Your task to perform on an android device: Search for "rayovac triple a" on costco.com, select the first entry, and add it to the cart. Image 0: 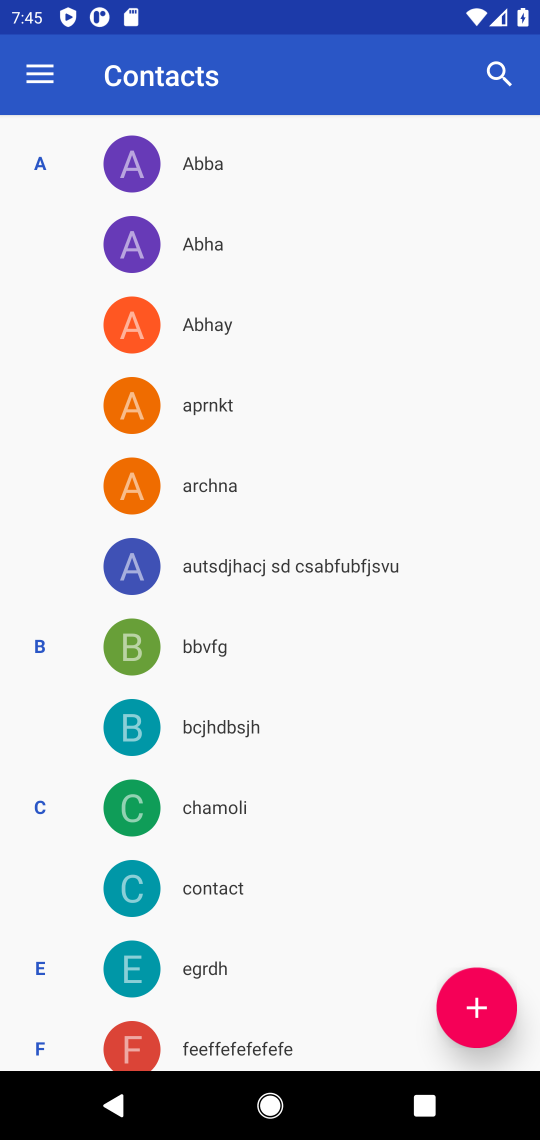
Step 0: press home button
Your task to perform on an android device: Search for "rayovac triple a" on costco.com, select the first entry, and add it to the cart. Image 1: 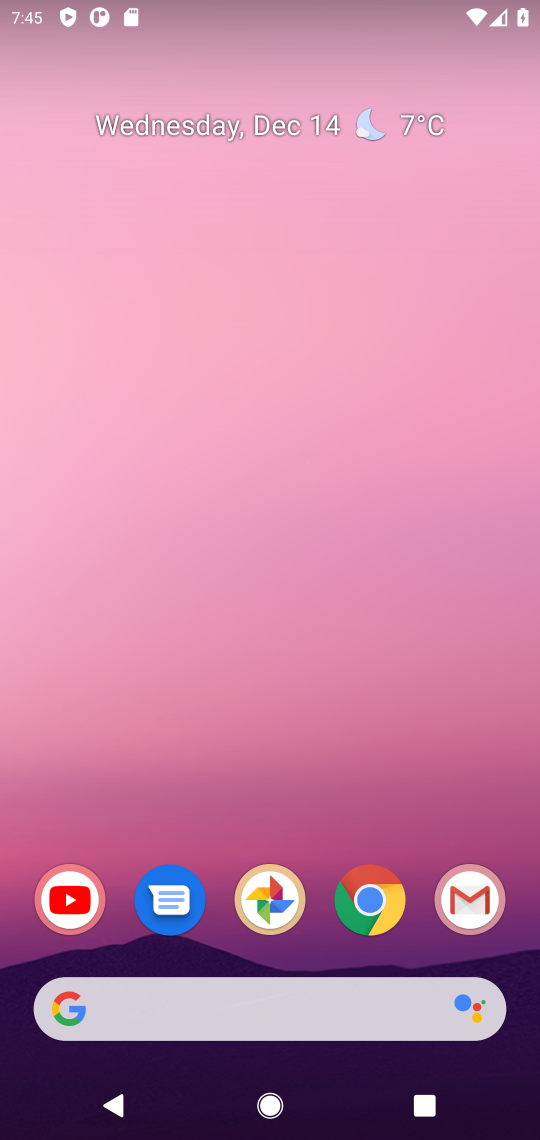
Step 1: drag from (251, 948) to (156, 219)
Your task to perform on an android device: Search for "rayovac triple a" on costco.com, select the first entry, and add it to the cart. Image 2: 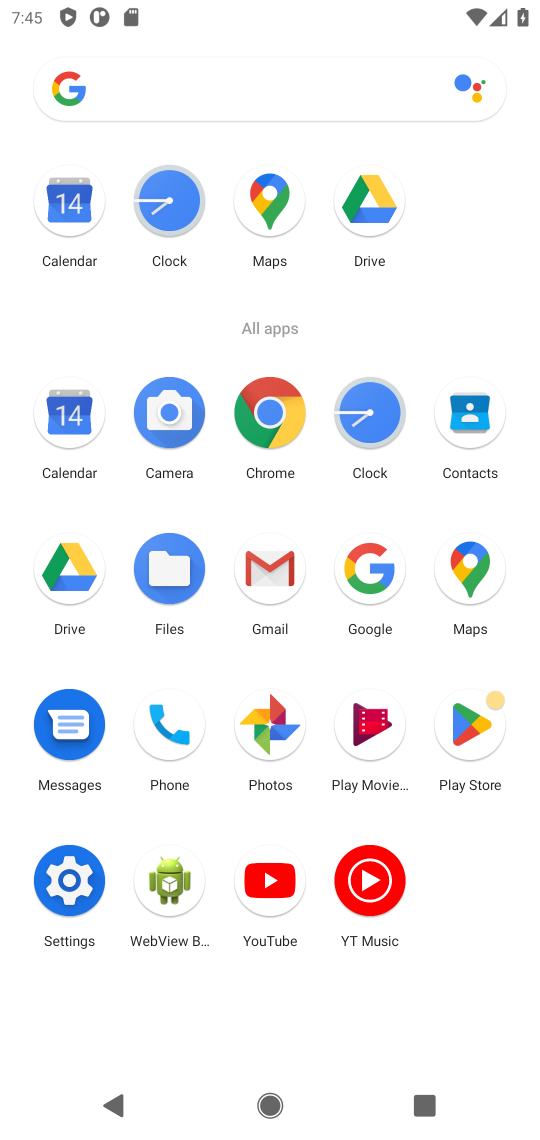
Step 2: click (374, 576)
Your task to perform on an android device: Search for "rayovac triple a" on costco.com, select the first entry, and add it to the cart. Image 3: 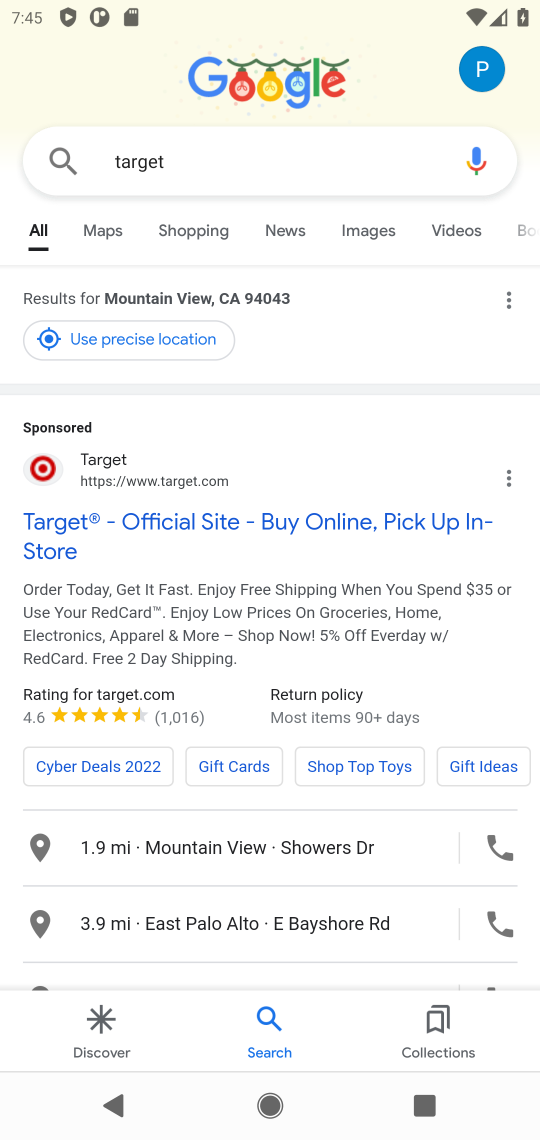
Step 3: click (226, 163)
Your task to perform on an android device: Search for "rayovac triple a" on costco.com, select the first entry, and add it to the cart. Image 4: 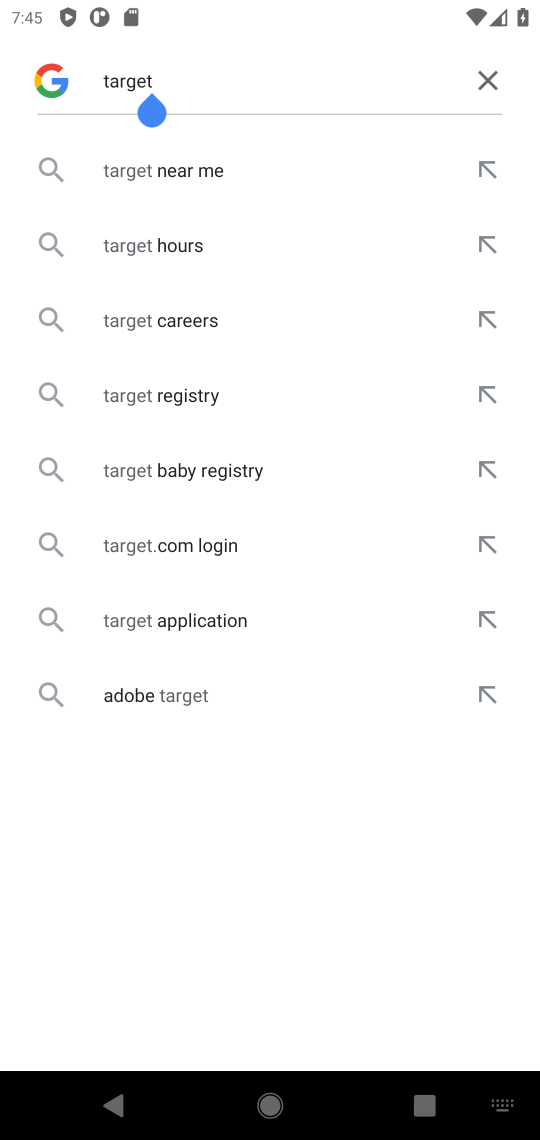
Step 4: click (491, 73)
Your task to perform on an android device: Search for "rayovac triple a" on costco.com, select the first entry, and add it to the cart. Image 5: 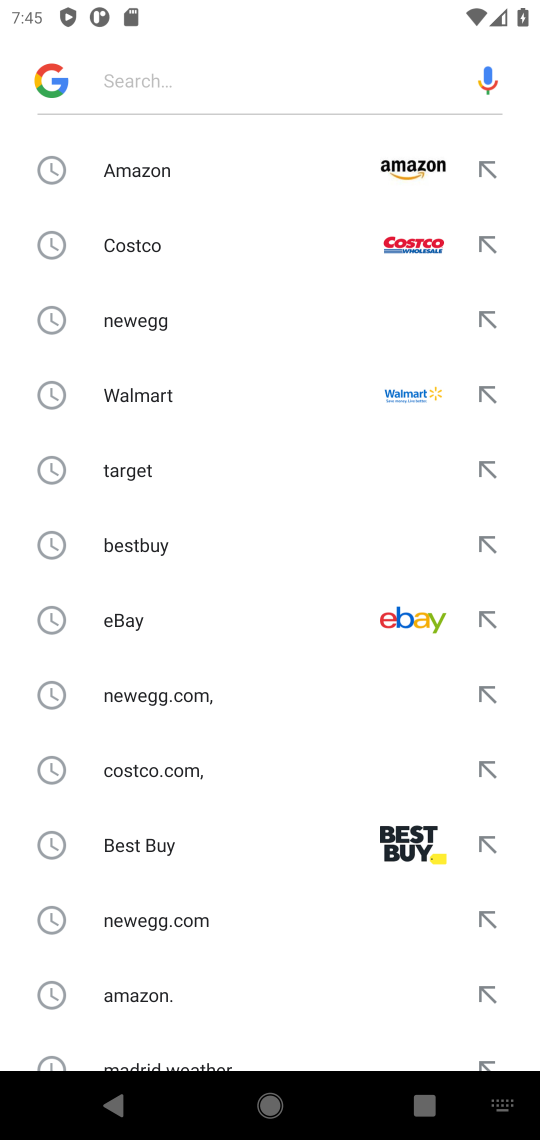
Step 5: type "ostco.com"
Your task to perform on an android device: Search for "rayovac triple a" on costco.com, select the first entry, and add it to the cart. Image 6: 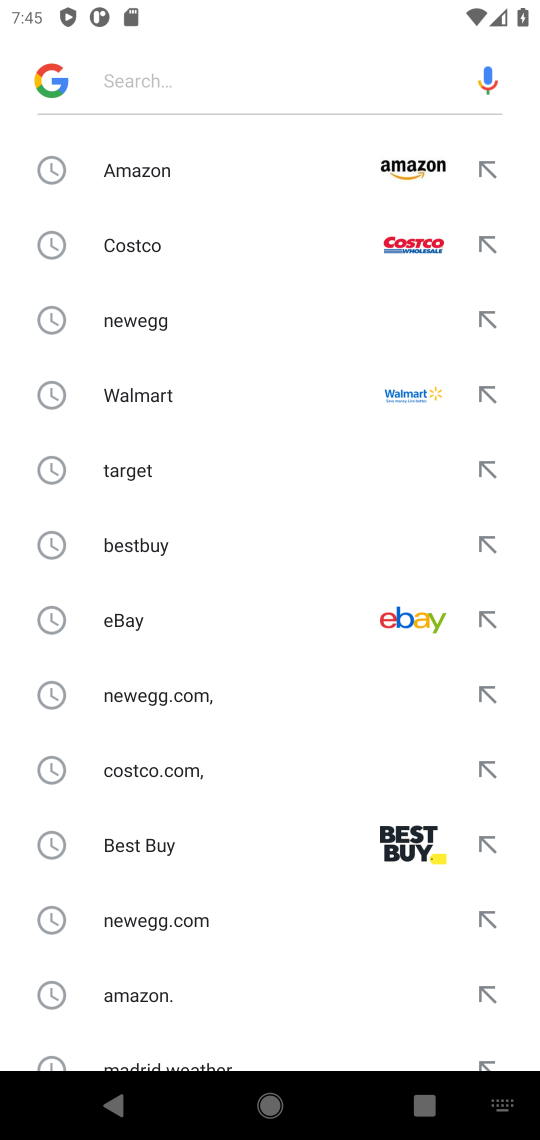
Step 6: click (324, 238)
Your task to perform on an android device: Search for "rayovac triple a" on costco.com, select the first entry, and add it to the cart. Image 7: 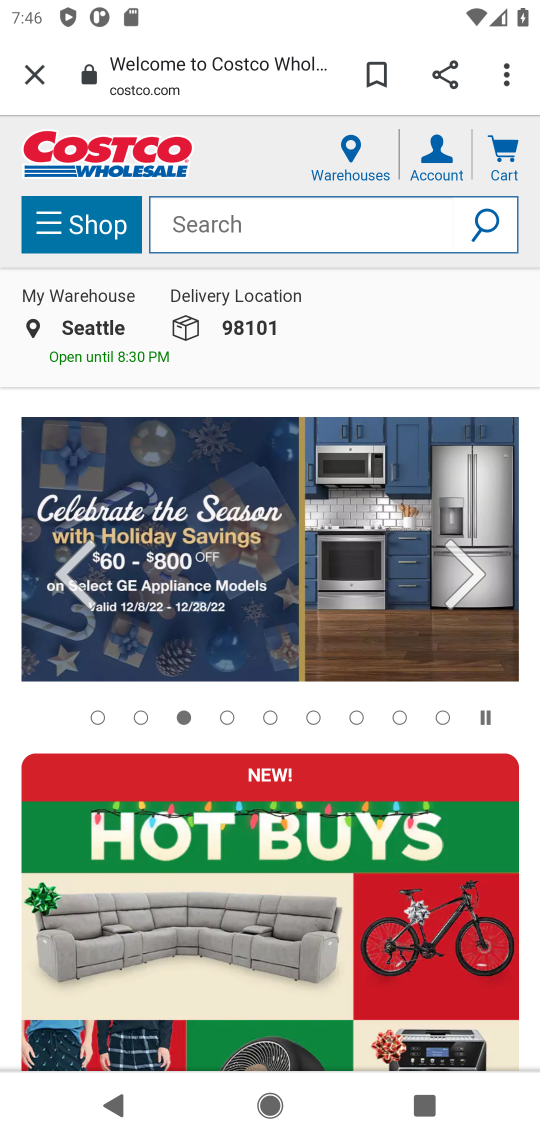
Step 7: click (272, 225)
Your task to perform on an android device: Search for "rayovac triple a" on costco.com, select the first entry, and add it to the cart. Image 8: 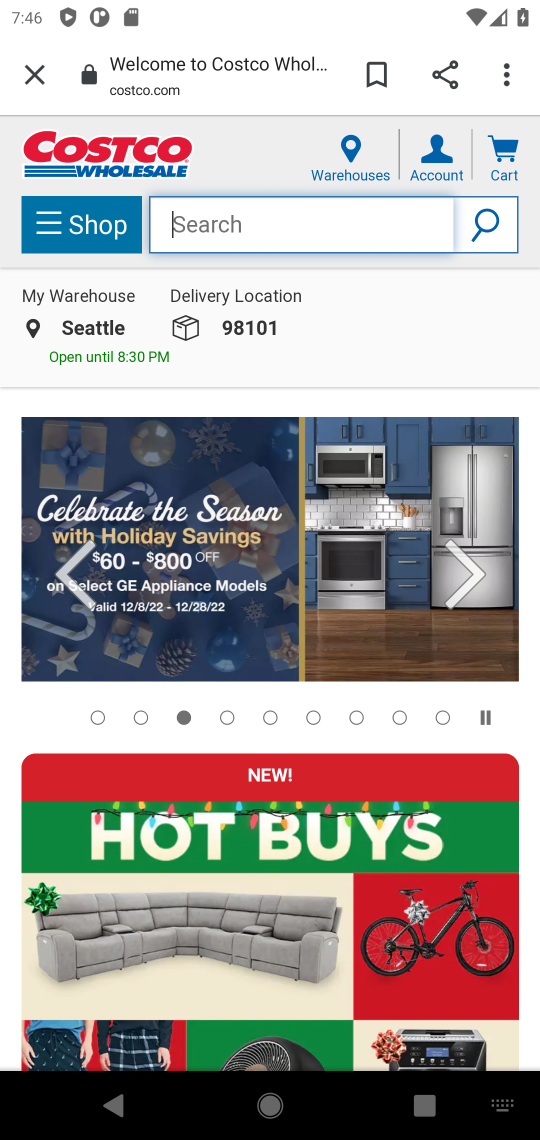
Step 8: type "rayovac triple a""
Your task to perform on an android device: Search for "rayovac triple a" on costco.com, select the first entry, and add it to the cart. Image 9: 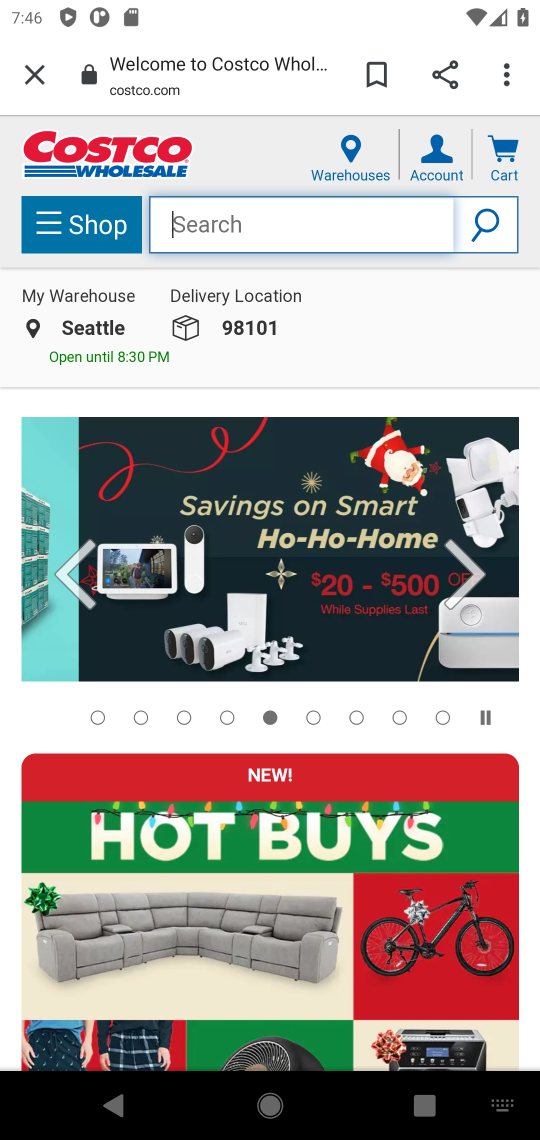
Step 9: click (332, 227)
Your task to perform on an android device: Search for "rayovac triple a" on costco.com, select the first entry, and add it to the cart. Image 10: 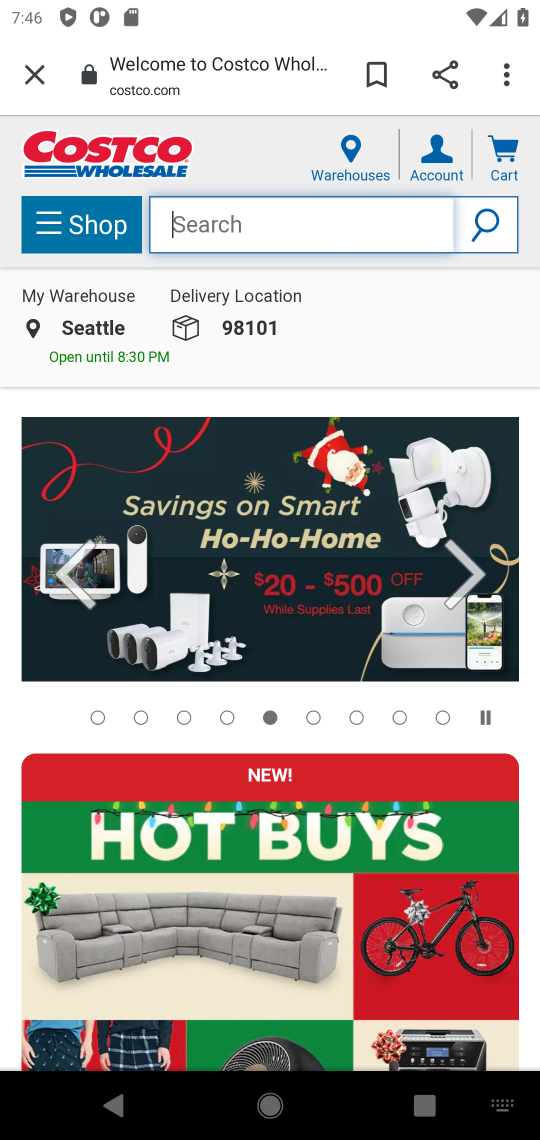
Step 10: type "rayovac triple a""
Your task to perform on an android device: Search for "rayovac triple a" on costco.com, select the first entry, and add it to the cart. Image 11: 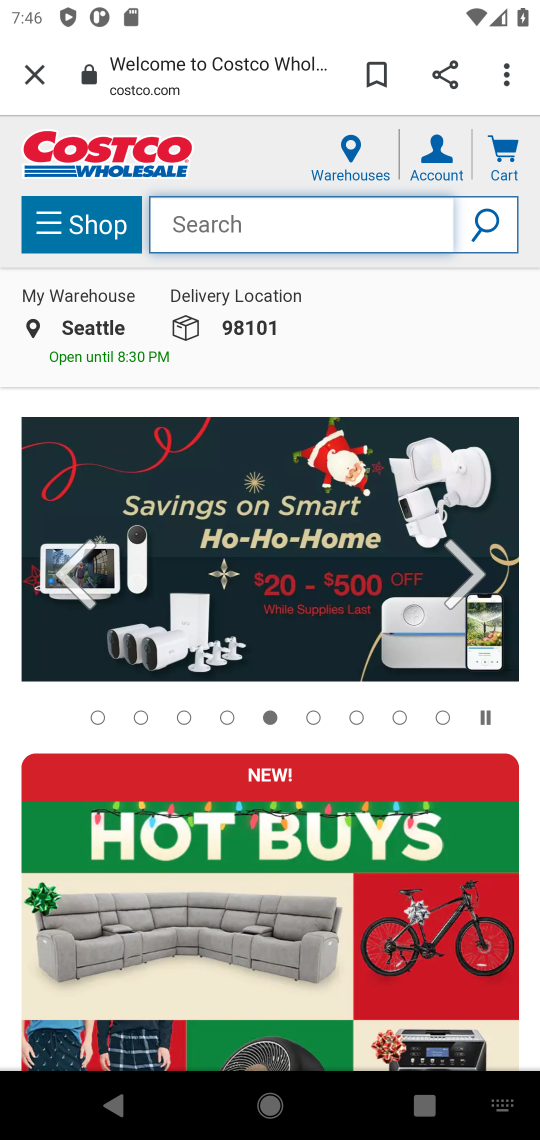
Step 11: type ""
Your task to perform on an android device: Search for "rayovac triple a" on costco.com, select the first entry, and add it to the cart. Image 12: 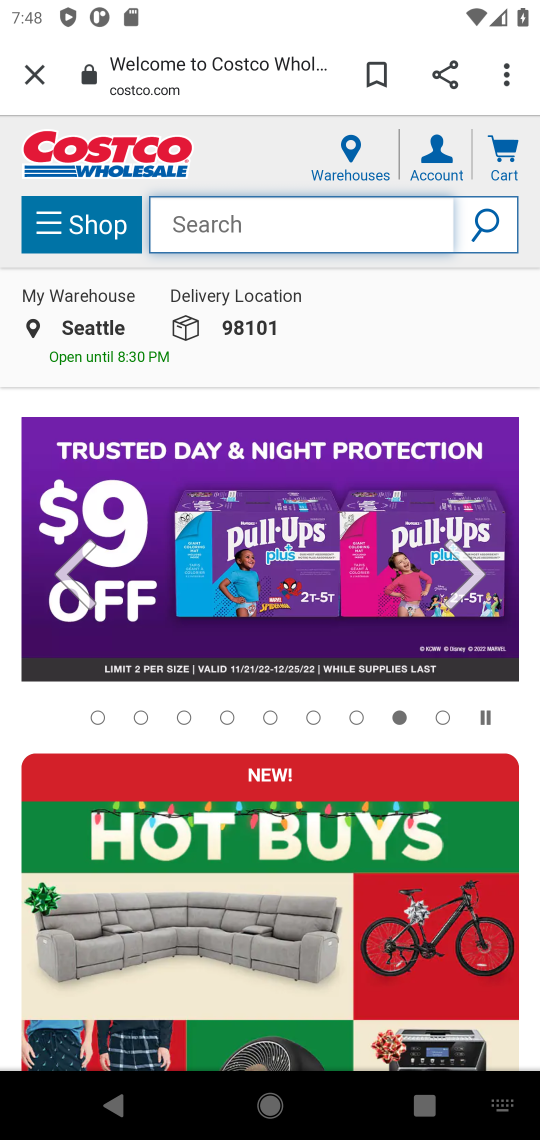
Step 12: type "rayovac triple a"
Your task to perform on an android device: Search for "rayovac triple a" on costco.com, select the first entry, and add it to the cart. Image 13: 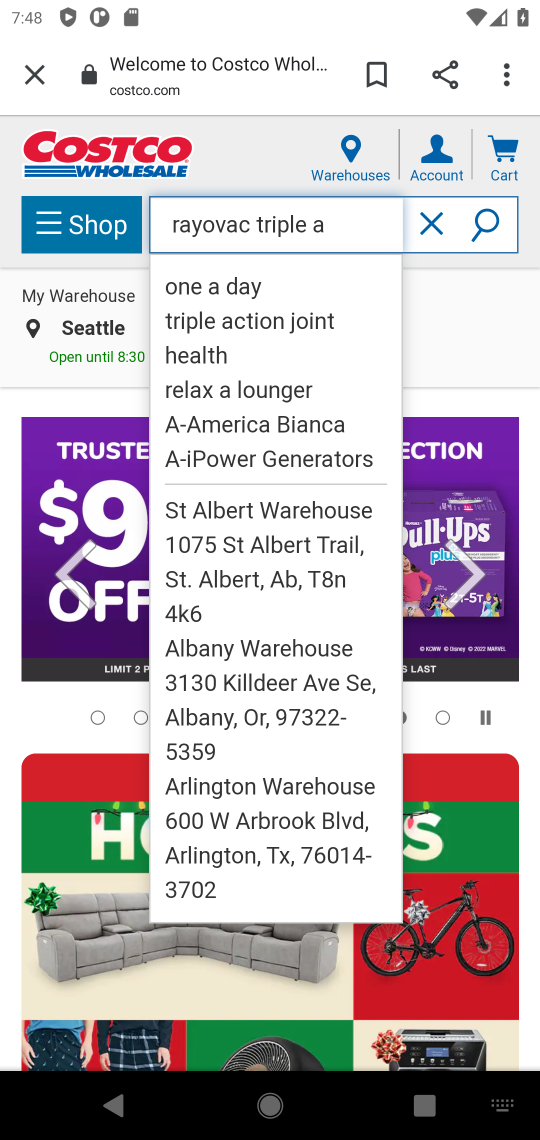
Step 13: click (473, 219)
Your task to perform on an android device: Search for "rayovac triple a" on costco.com, select the first entry, and add it to the cart. Image 14: 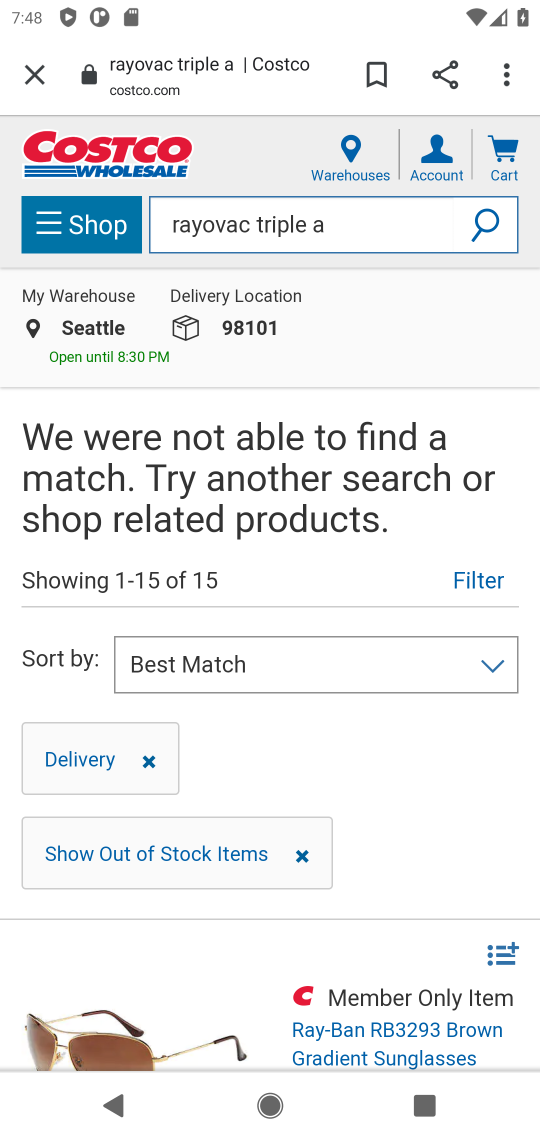
Step 14: task complete